Your task to perform on an android device: allow cookies in the chrome app Image 0: 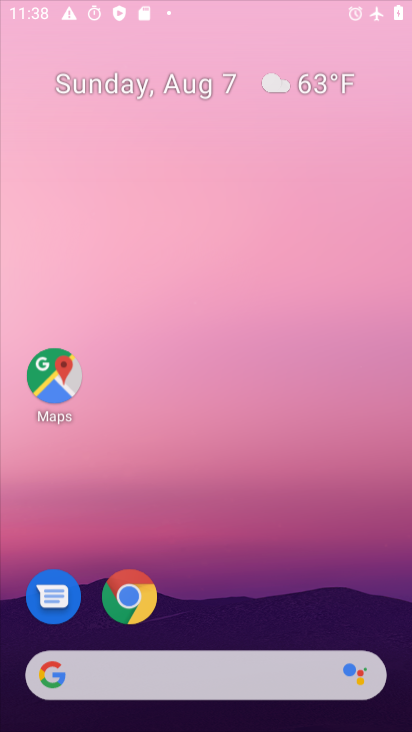
Step 0: drag from (261, 614) to (257, 137)
Your task to perform on an android device: allow cookies in the chrome app Image 1: 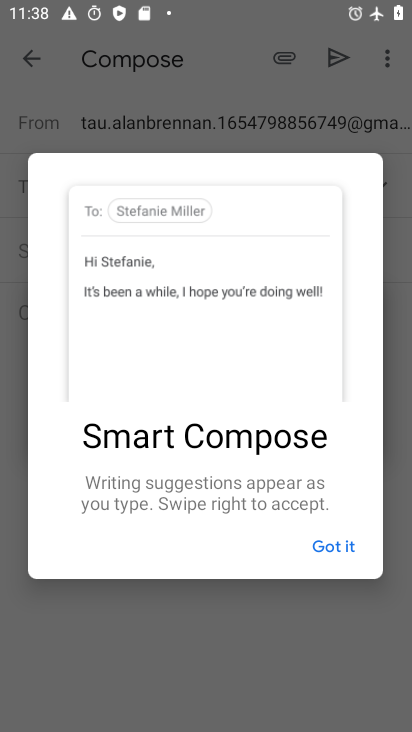
Step 1: press home button
Your task to perform on an android device: allow cookies in the chrome app Image 2: 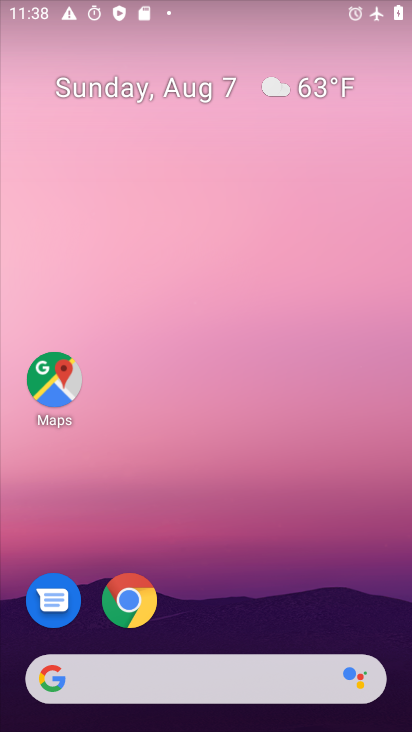
Step 2: drag from (256, 387) to (257, 173)
Your task to perform on an android device: allow cookies in the chrome app Image 3: 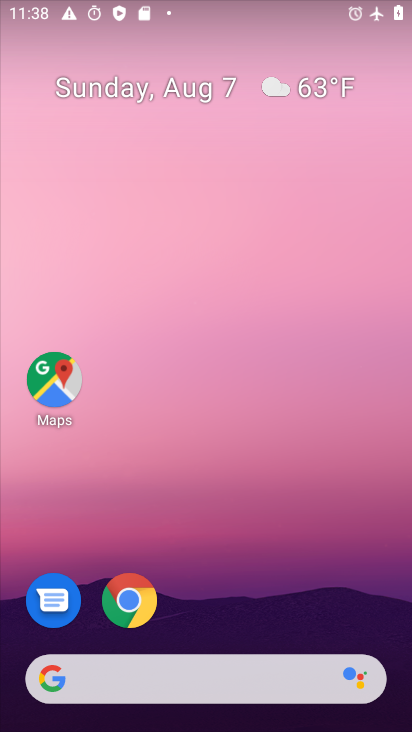
Step 3: drag from (232, 609) to (233, 96)
Your task to perform on an android device: allow cookies in the chrome app Image 4: 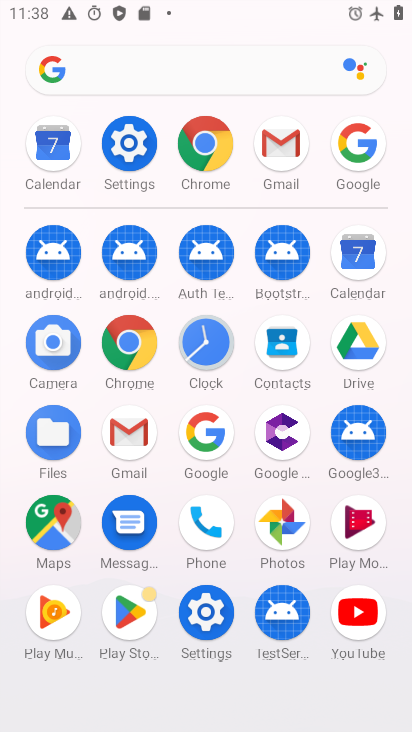
Step 4: click (204, 153)
Your task to perform on an android device: allow cookies in the chrome app Image 5: 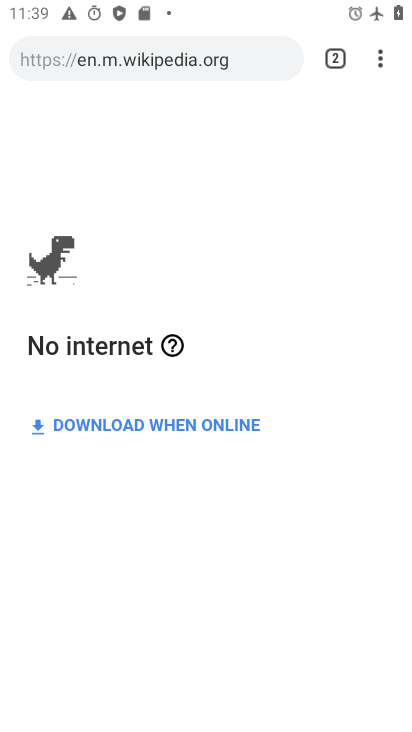
Step 5: click (376, 58)
Your task to perform on an android device: allow cookies in the chrome app Image 6: 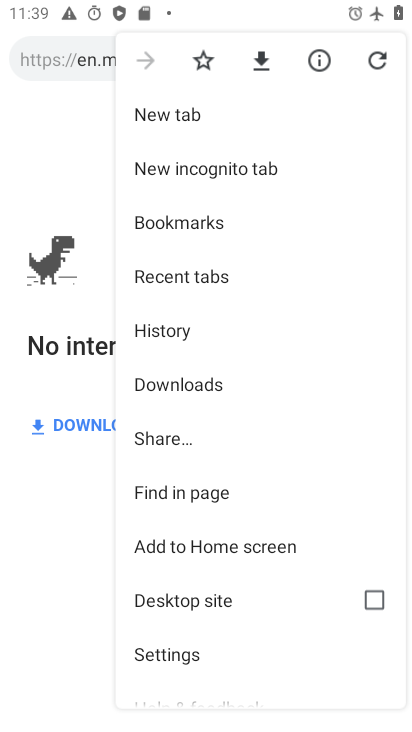
Step 6: drag from (219, 620) to (287, 120)
Your task to perform on an android device: allow cookies in the chrome app Image 7: 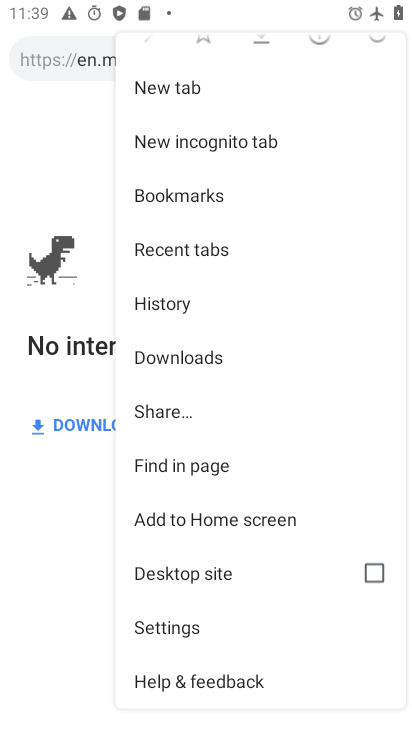
Step 7: click (178, 620)
Your task to perform on an android device: allow cookies in the chrome app Image 8: 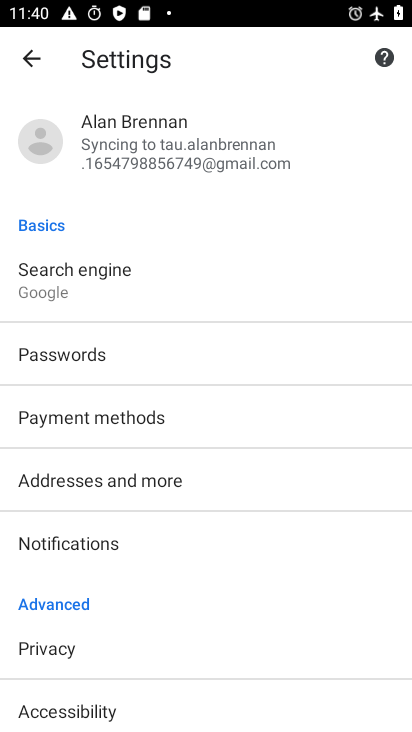
Step 8: drag from (204, 556) to (260, 202)
Your task to perform on an android device: allow cookies in the chrome app Image 9: 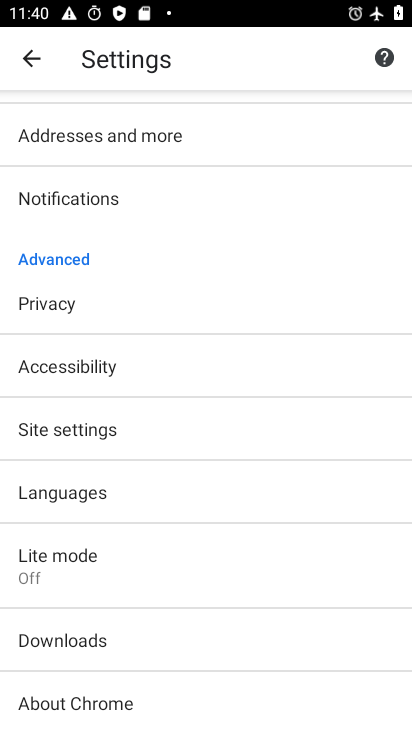
Step 9: click (77, 437)
Your task to perform on an android device: allow cookies in the chrome app Image 10: 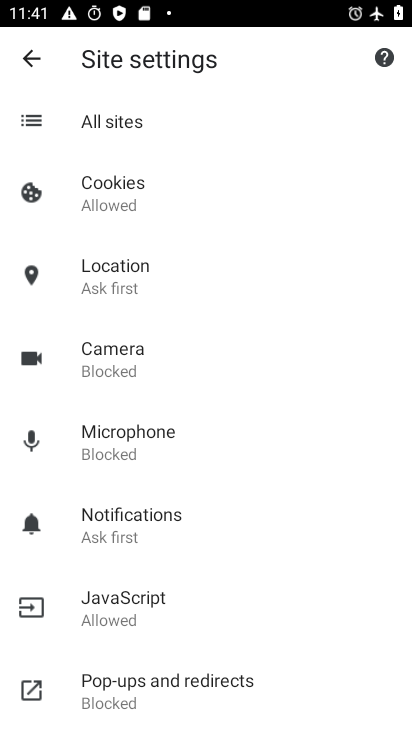
Step 10: click (161, 201)
Your task to perform on an android device: allow cookies in the chrome app Image 11: 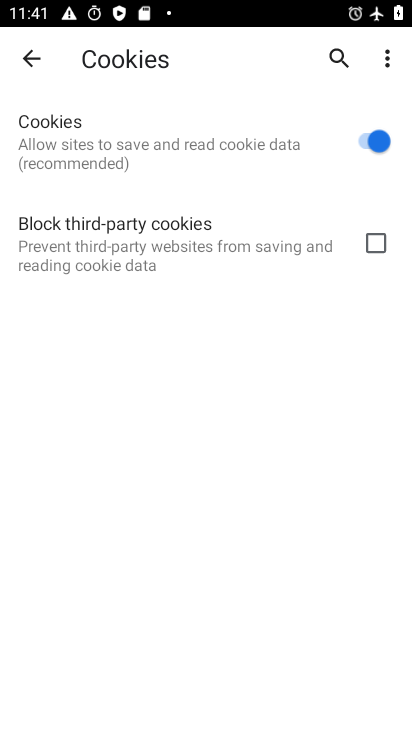
Step 11: task complete